Your task to perform on an android device: Open my contact list Image 0: 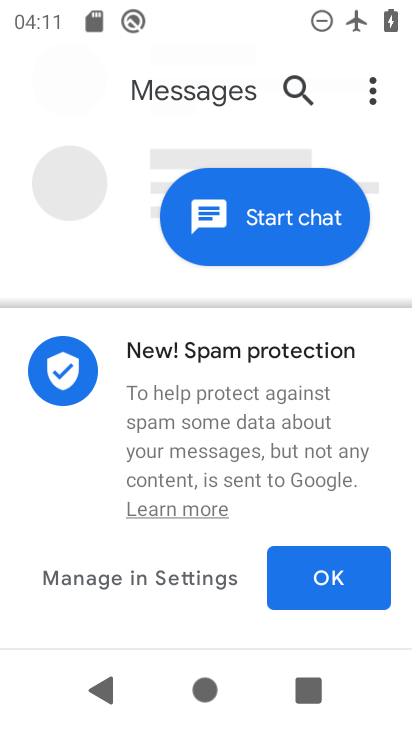
Step 0: press home button
Your task to perform on an android device: Open my contact list Image 1: 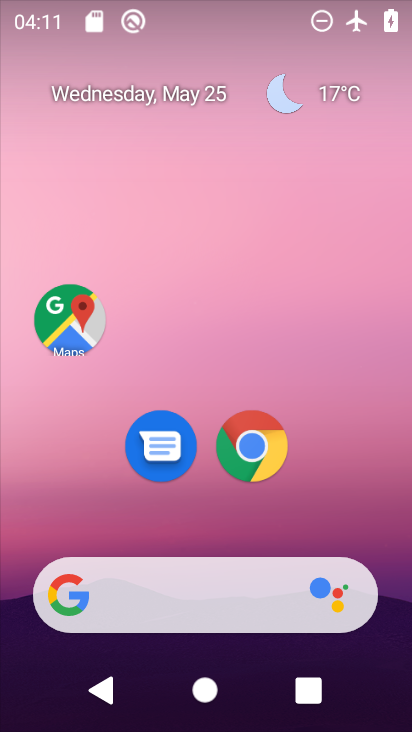
Step 1: drag from (161, 580) to (126, 71)
Your task to perform on an android device: Open my contact list Image 2: 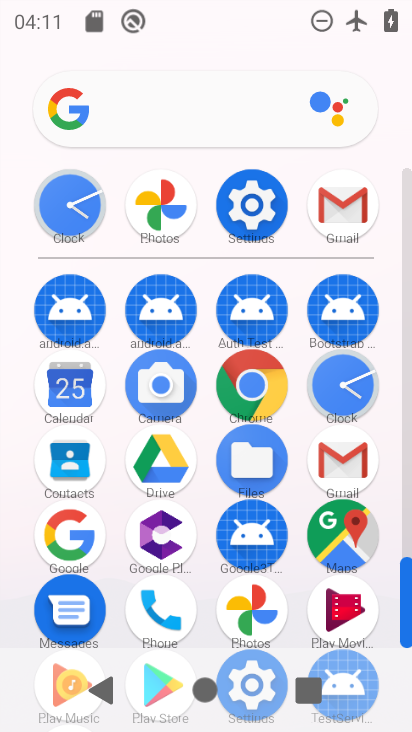
Step 2: click (80, 464)
Your task to perform on an android device: Open my contact list Image 3: 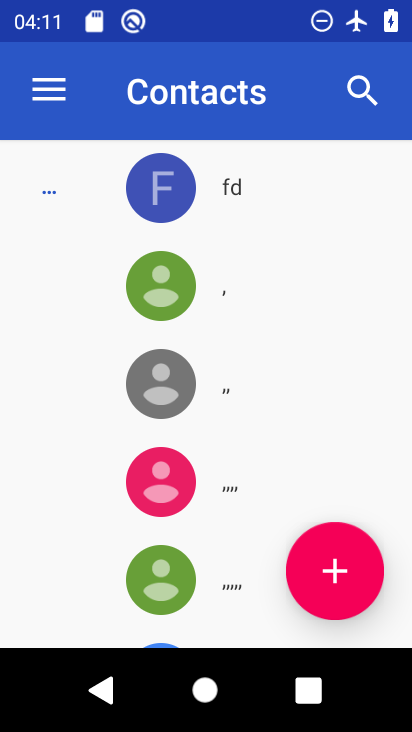
Step 3: task complete